Your task to perform on an android device: empty trash in google photos Image 0: 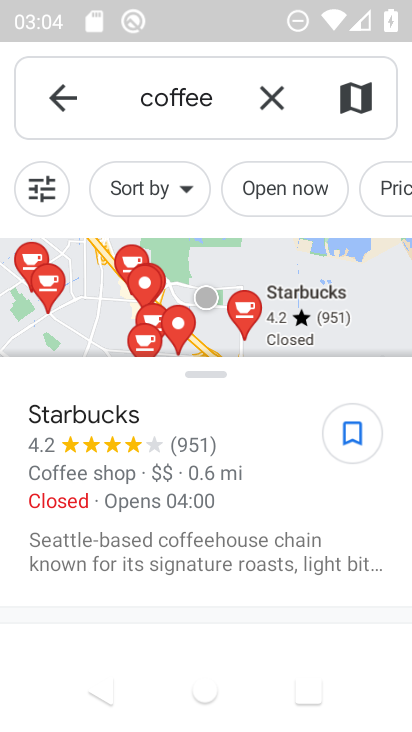
Step 0: press home button
Your task to perform on an android device: empty trash in google photos Image 1: 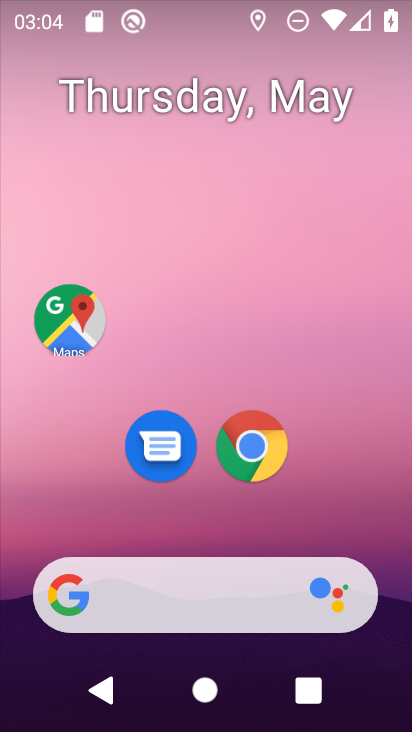
Step 1: drag from (370, 515) to (349, 0)
Your task to perform on an android device: empty trash in google photos Image 2: 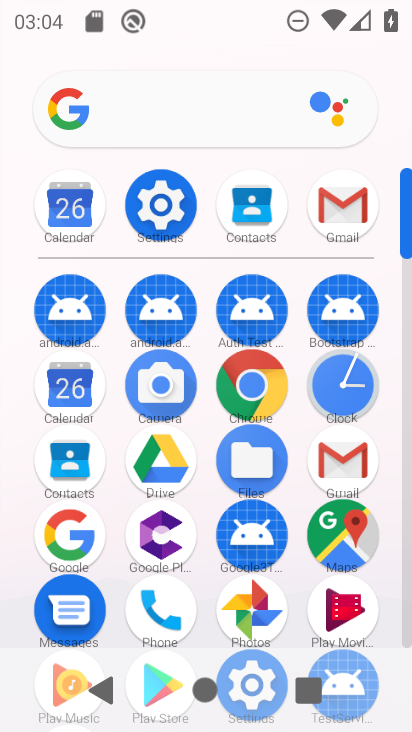
Step 2: click (245, 616)
Your task to perform on an android device: empty trash in google photos Image 3: 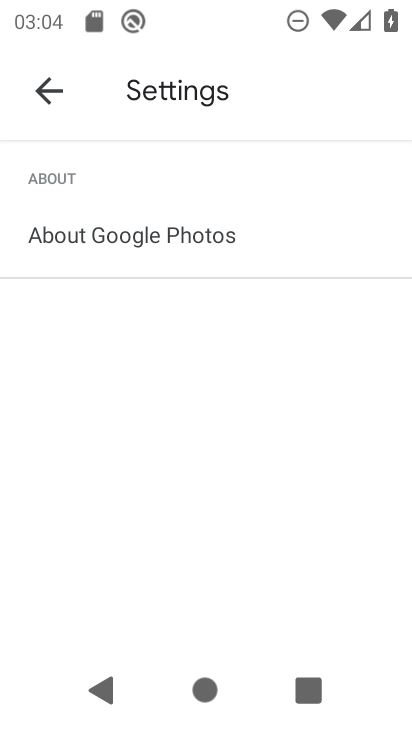
Step 3: click (49, 86)
Your task to perform on an android device: empty trash in google photos Image 4: 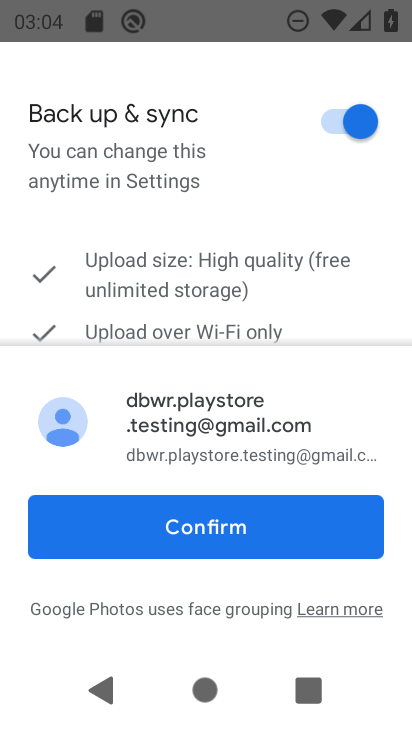
Step 4: click (213, 527)
Your task to perform on an android device: empty trash in google photos Image 5: 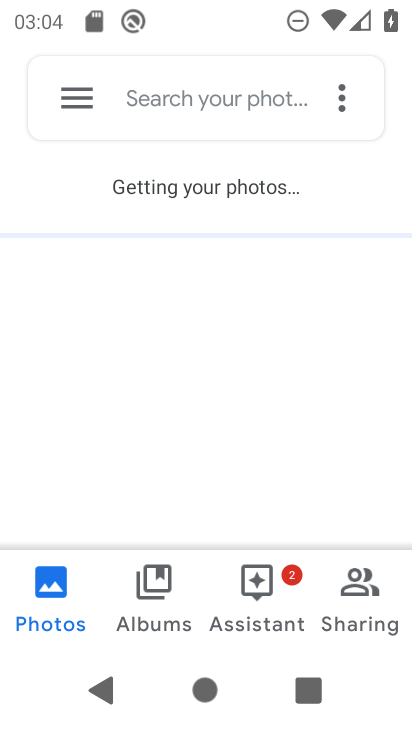
Step 5: click (80, 100)
Your task to perform on an android device: empty trash in google photos Image 6: 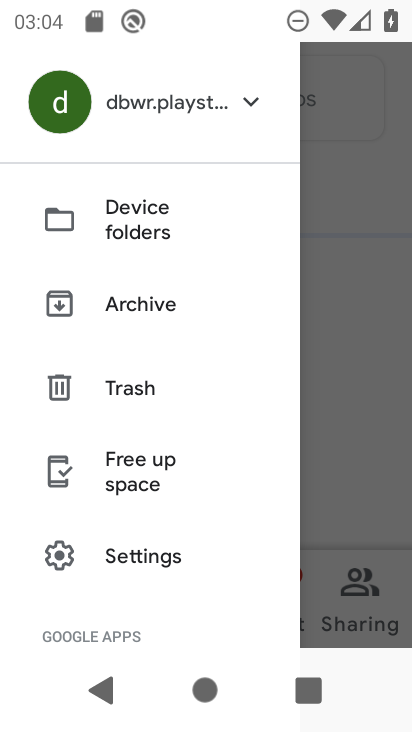
Step 6: click (128, 391)
Your task to perform on an android device: empty trash in google photos Image 7: 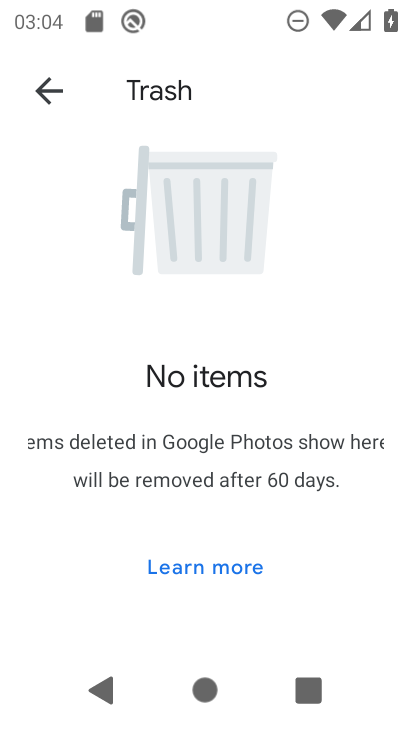
Step 7: task complete